Your task to perform on an android device: show emergency info Image 0: 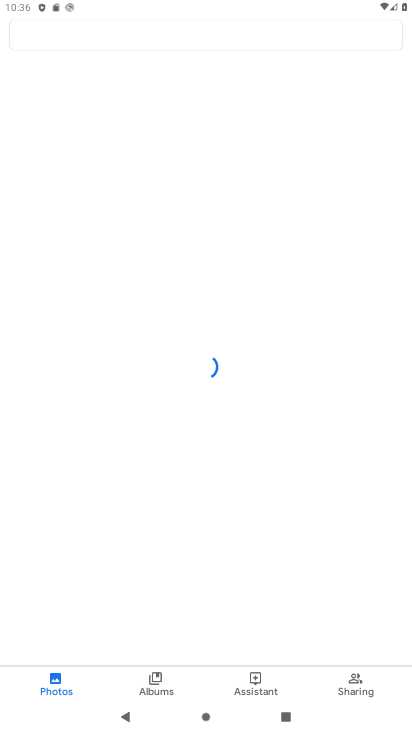
Step 0: press home button
Your task to perform on an android device: show emergency info Image 1: 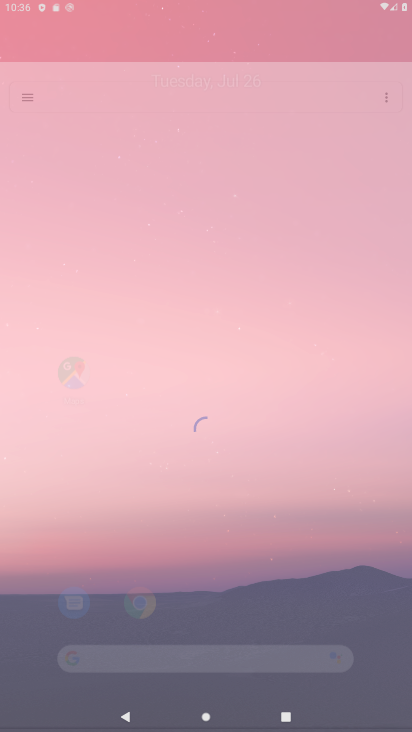
Step 1: drag from (392, 674) to (167, 33)
Your task to perform on an android device: show emergency info Image 2: 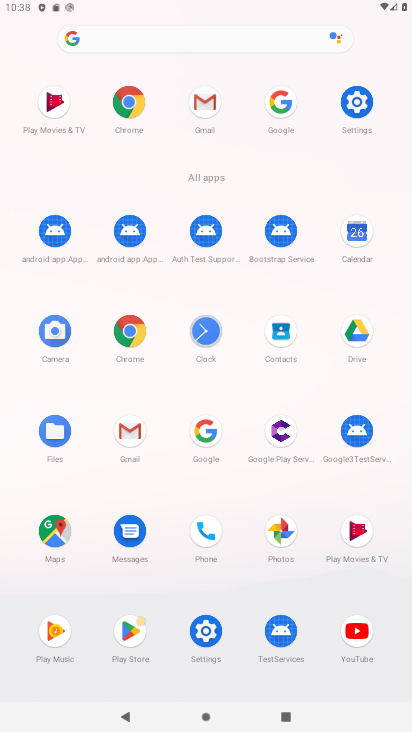
Step 2: click (204, 619)
Your task to perform on an android device: show emergency info Image 3: 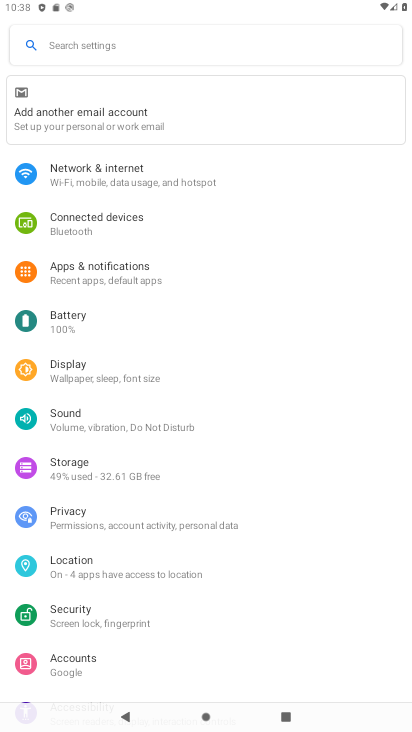
Step 3: drag from (97, 651) to (105, 129)
Your task to perform on an android device: show emergency info Image 4: 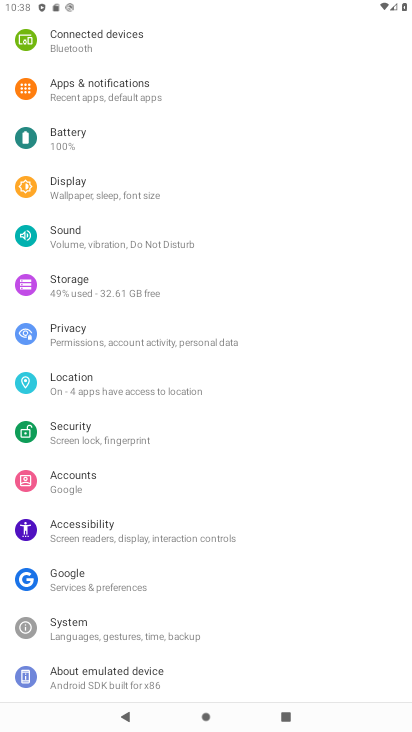
Step 4: click (92, 674)
Your task to perform on an android device: show emergency info Image 5: 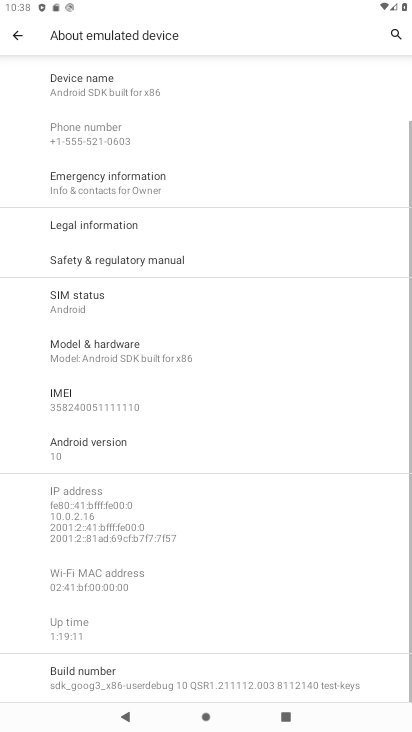
Step 5: click (104, 185)
Your task to perform on an android device: show emergency info Image 6: 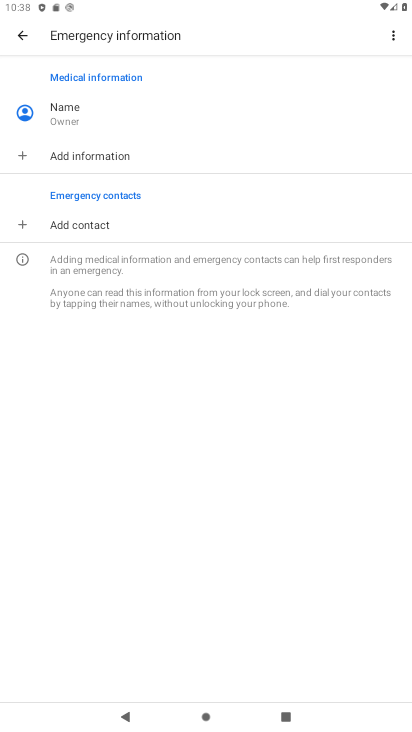
Step 6: task complete